Your task to perform on an android device: turn off airplane mode Image 0: 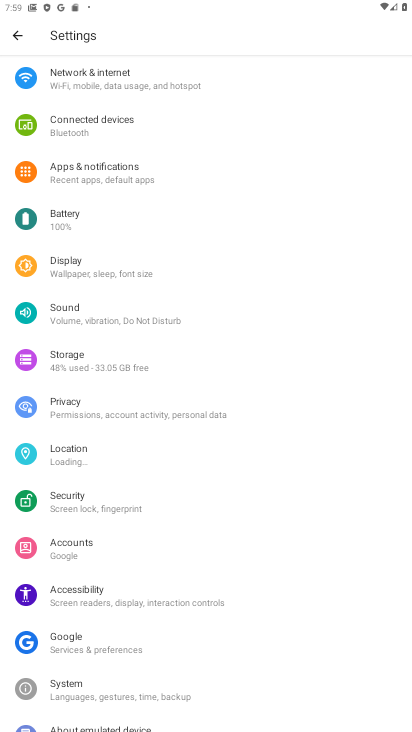
Step 0: click (80, 76)
Your task to perform on an android device: turn off airplane mode Image 1: 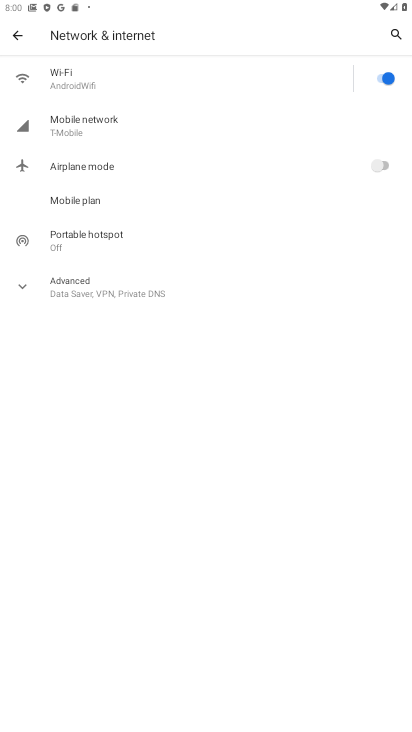
Step 1: task complete